Your task to perform on an android device: check battery use Image 0: 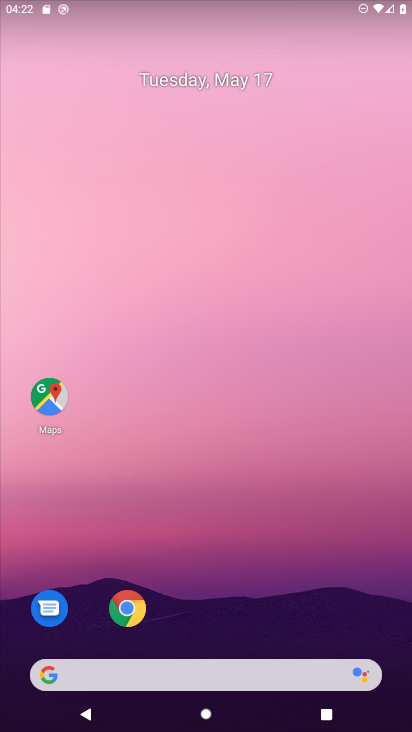
Step 0: click (296, 193)
Your task to perform on an android device: check battery use Image 1: 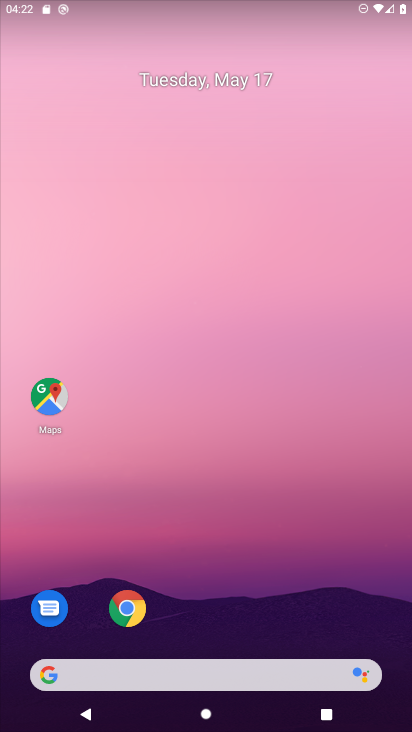
Step 1: drag from (191, 648) to (205, 301)
Your task to perform on an android device: check battery use Image 2: 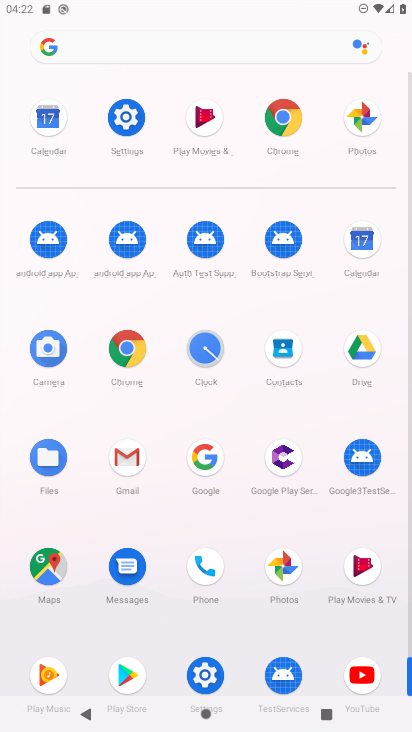
Step 2: click (127, 118)
Your task to perform on an android device: check battery use Image 3: 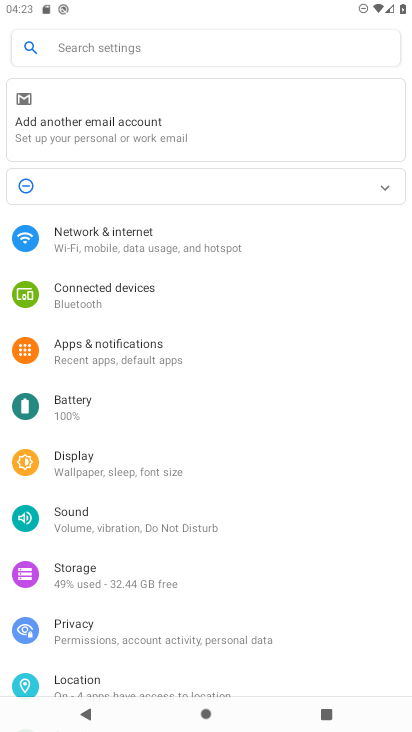
Step 3: click (89, 419)
Your task to perform on an android device: check battery use Image 4: 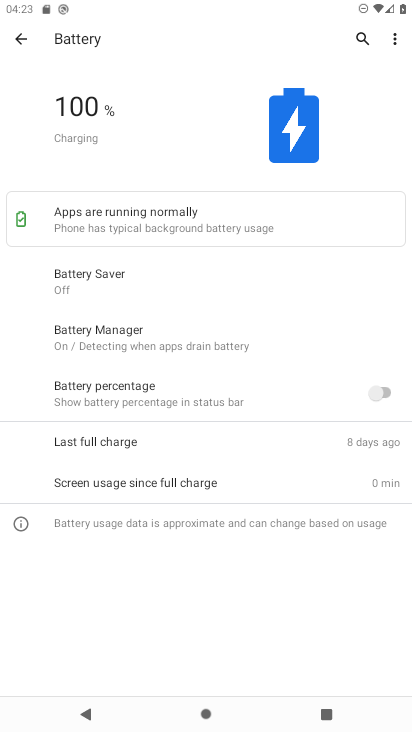
Step 4: click (389, 39)
Your task to perform on an android device: check battery use Image 5: 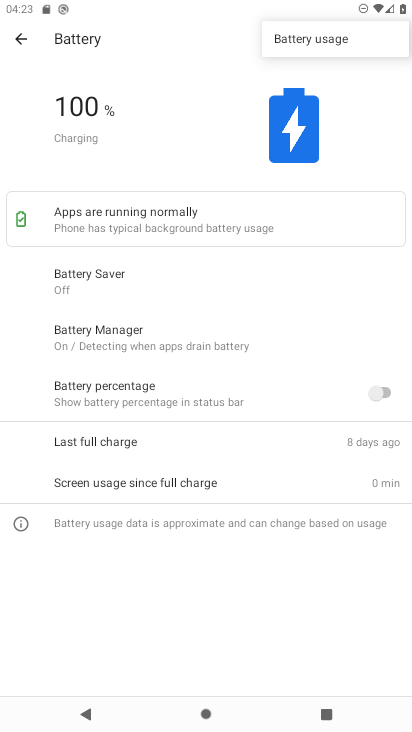
Step 5: click (315, 32)
Your task to perform on an android device: check battery use Image 6: 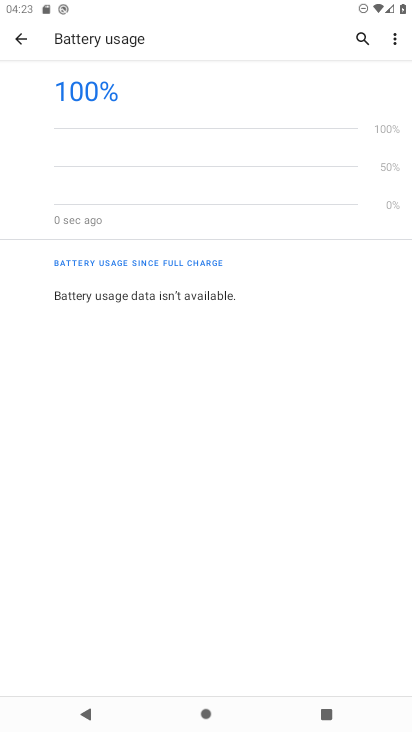
Step 6: task complete